Your task to perform on an android device: When is my next appointment? Image 0: 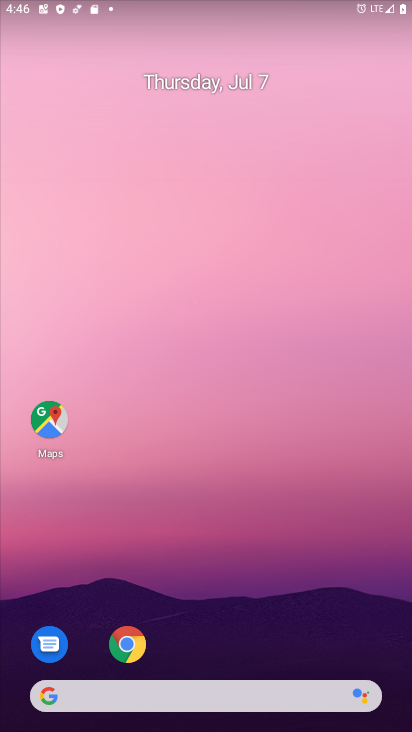
Step 0: drag from (223, 640) to (150, 125)
Your task to perform on an android device: When is my next appointment? Image 1: 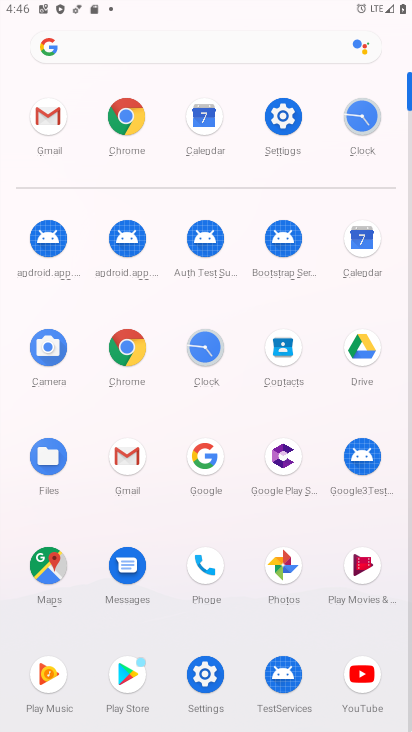
Step 1: click (369, 237)
Your task to perform on an android device: When is my next appointment? Image 2: 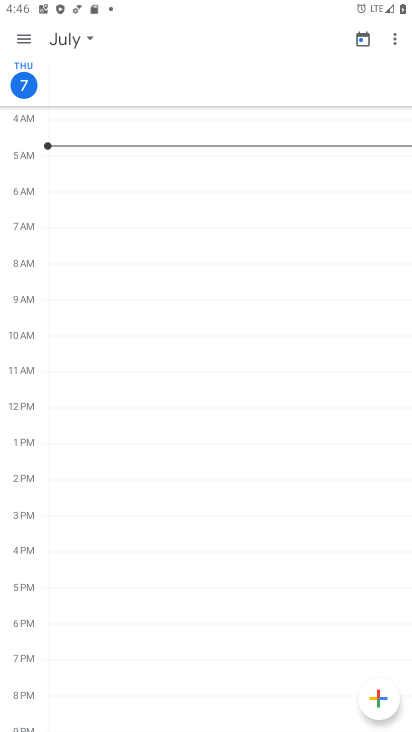
Step 2: click (85, 40)
Your task to perform on an android device: When is my next appointment? Image 3: 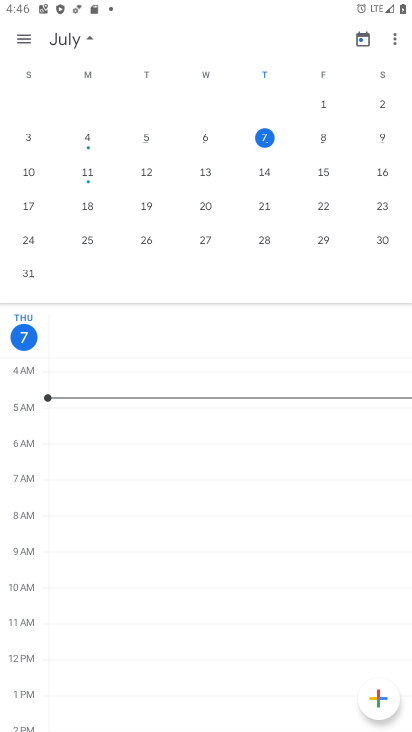
Step 3: click (91, 171)
Your task to perform on an android device: When is my next appointment? Image 4: 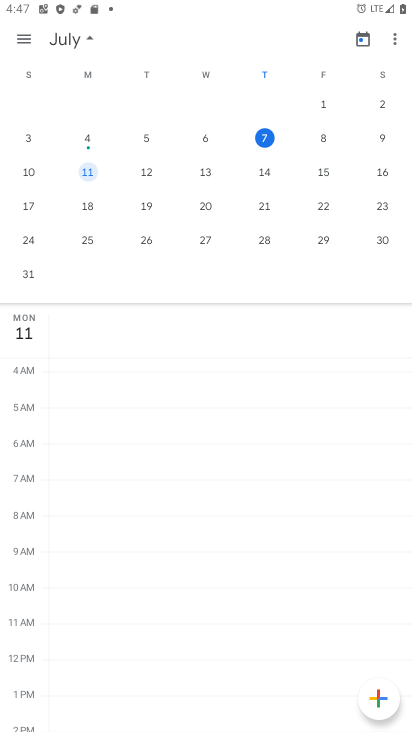
Step 4: click (28, 36)
Your task to perform on an android device: When is my next appointment? Image 5: 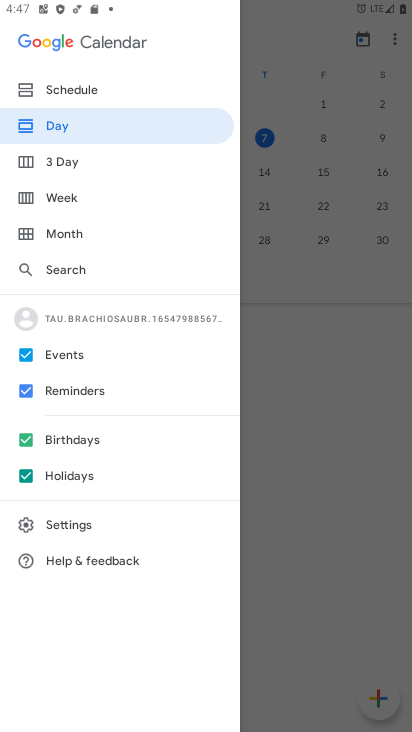
Step 5: click (79, 91)
Your task to perform on an android device: When is my next appointment? Image 6: 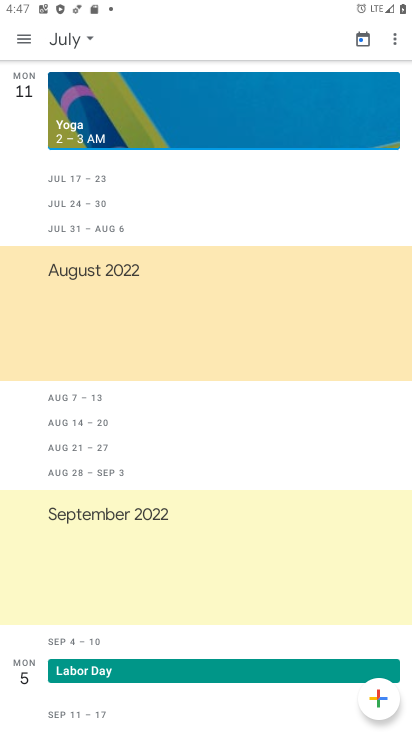
Step 6: task complete